Your task to perform on an android device: open app "Pinterest" Image 0: 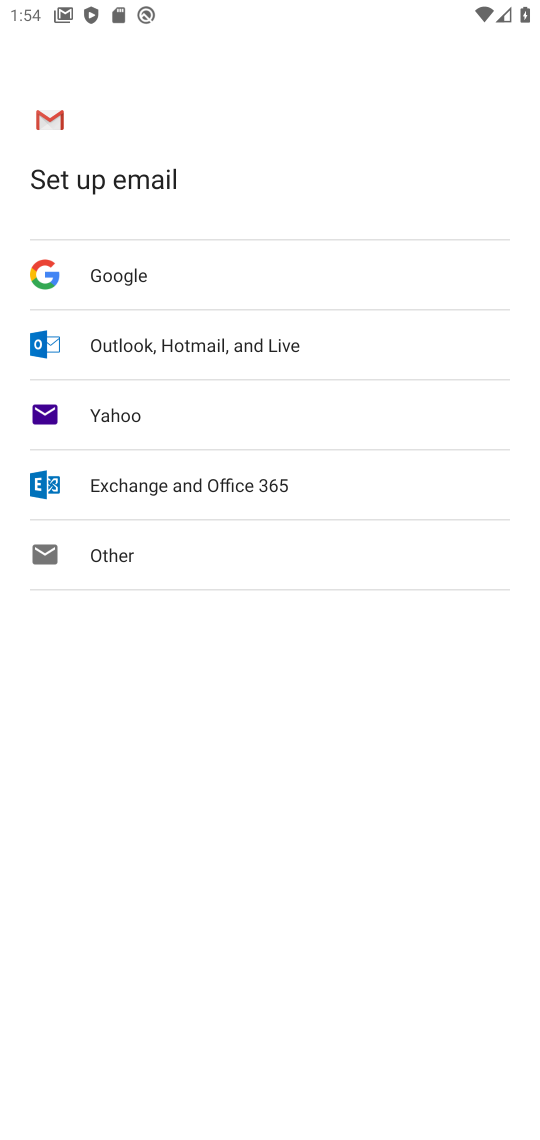
Step 0: press home button
Your task to perform on an android device: open app "Pinterest" Image 1: 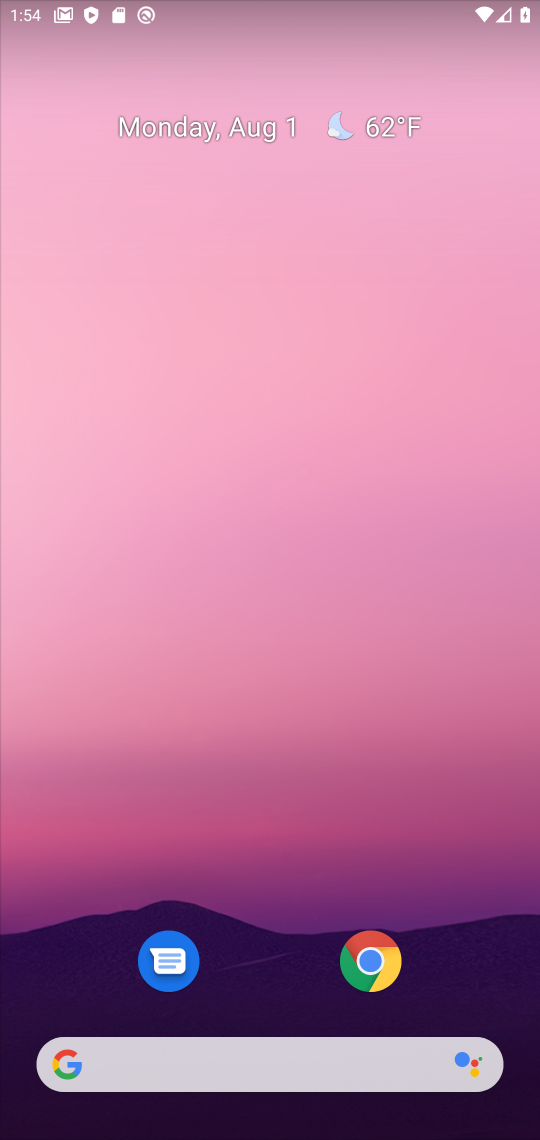
Step 1: drag from (231, 583) to (223, 108)
Your task to perform on an android device: open app "Pinterest" Image 2: 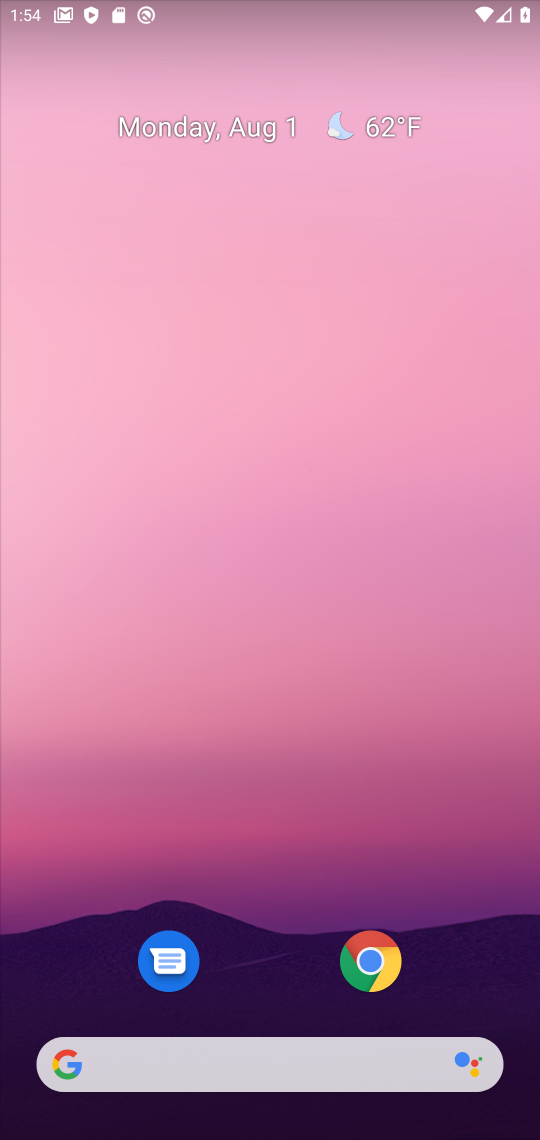
Step 2: drag from (467, 926) to (459, 127)
Your task to perform on an android device: open app "Pinterest" Image 3: 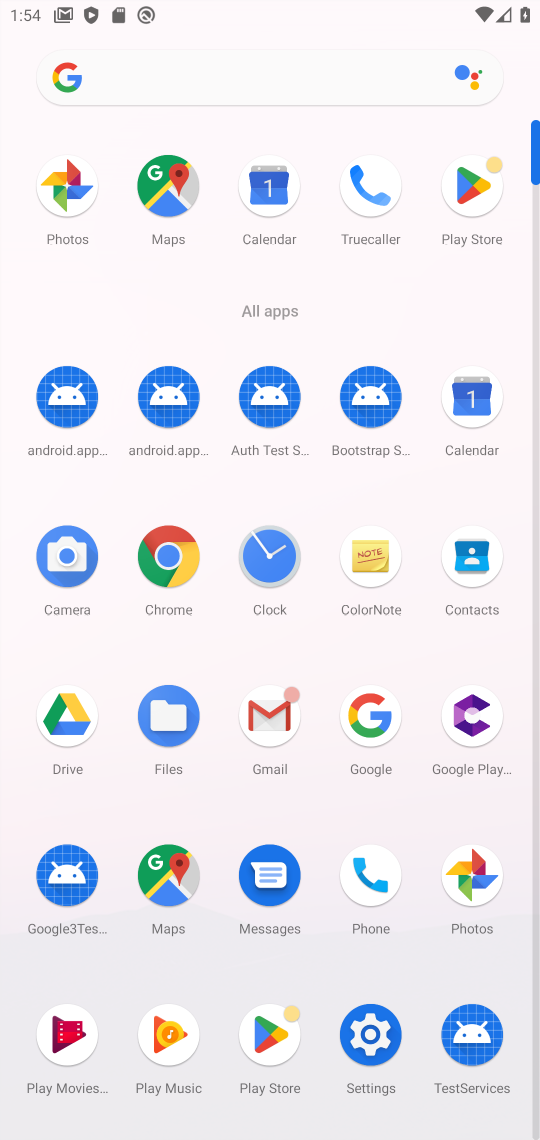
Step 3: click (475, 175)
Your task to perform on an android device: open app "Pinterest" Image 4: 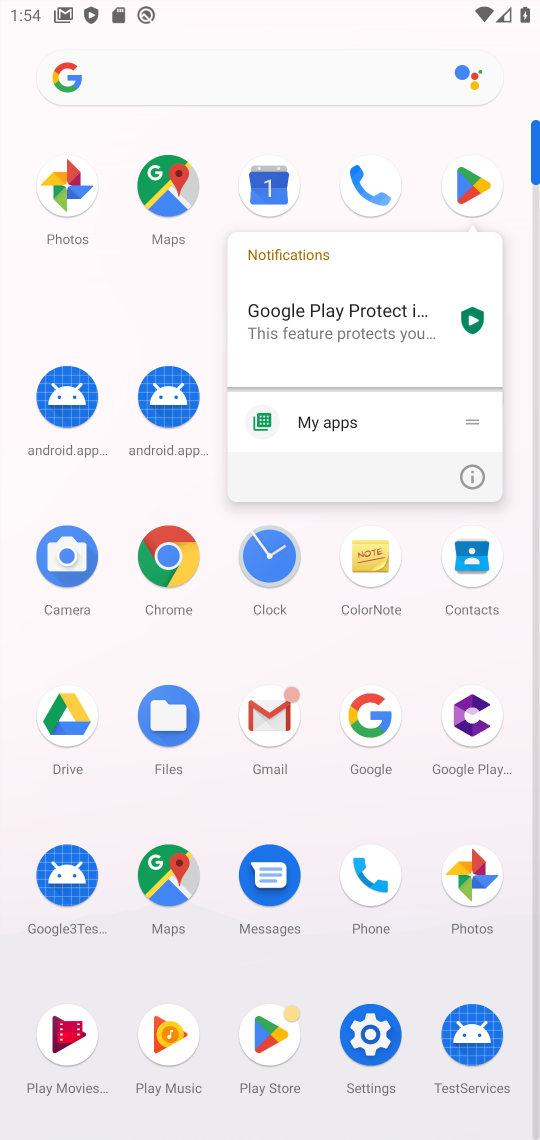
Step 4: click (460, 180)
Your task to perform on an android device: open app "Pinterest" Image 5: 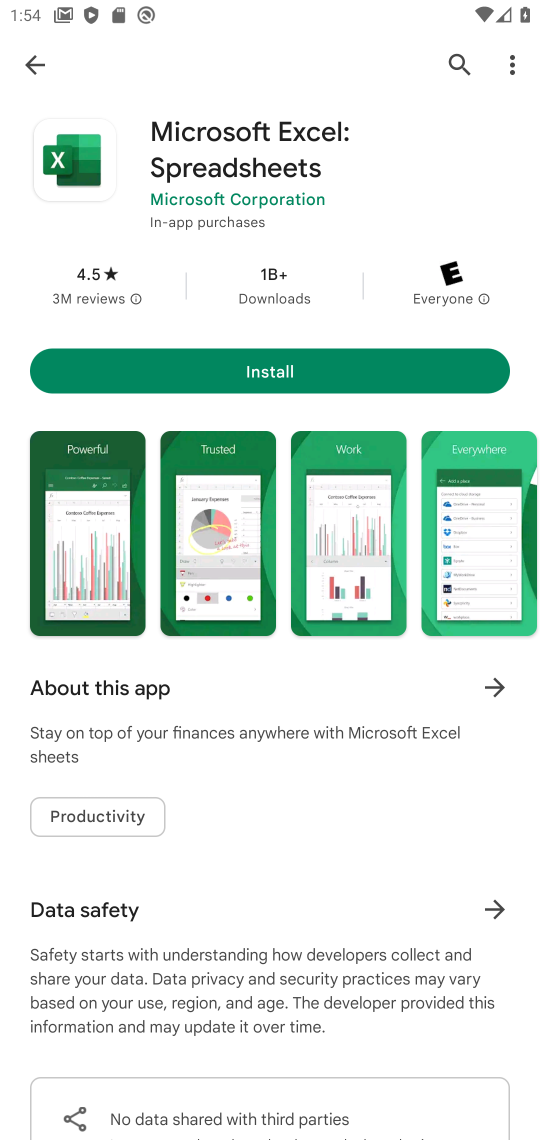
Step 5: click (461, 74)
Your task to perform on an android device: open app "Pinterest" Image 6: 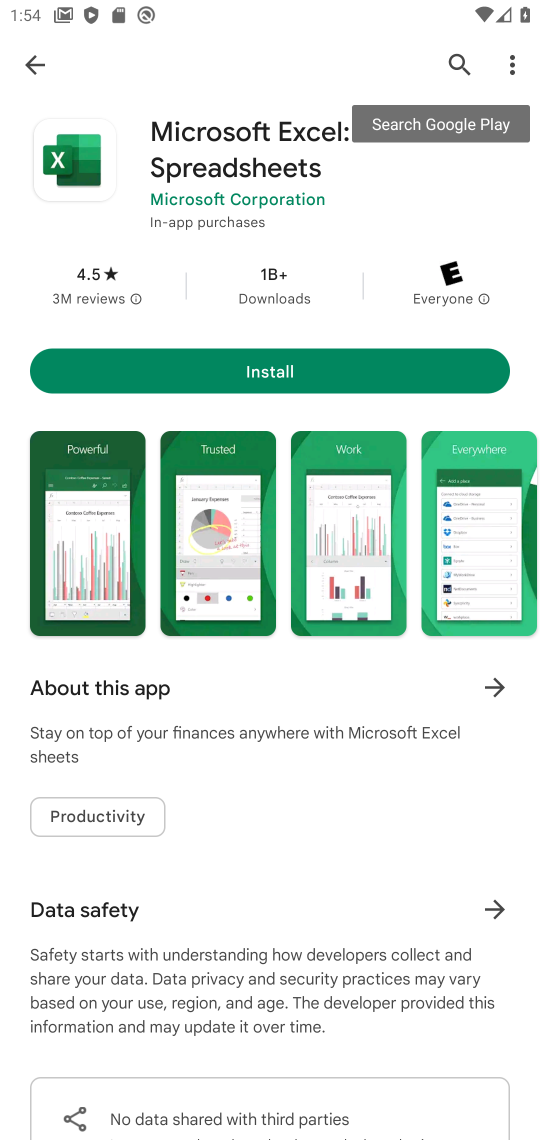
Step 6: type ""
Your task to perform on an android device: open app "Pinterest" Image 7: 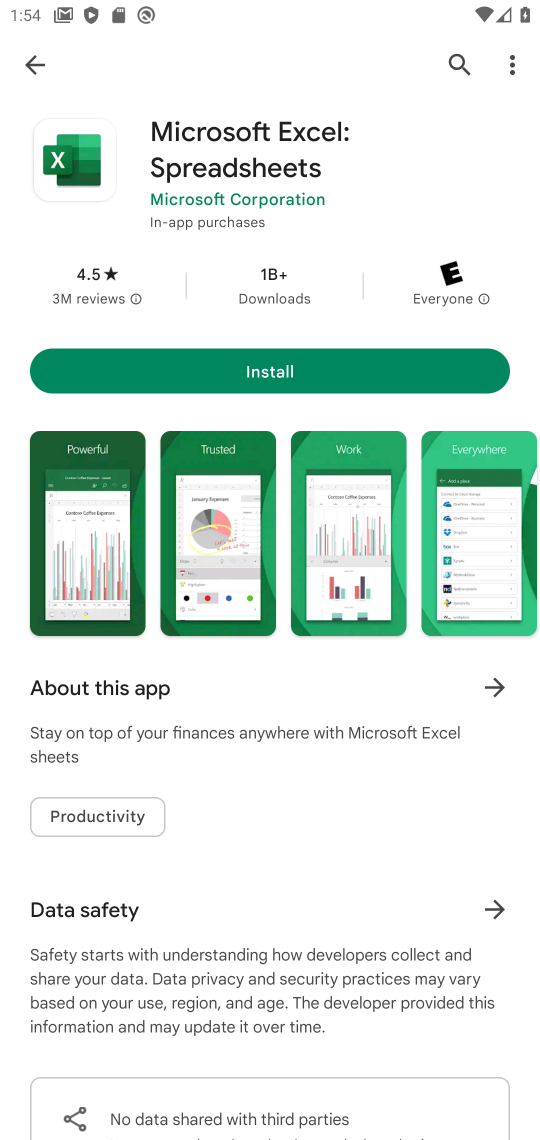
Step 7: click (438, 50)
Your task to perform on an android device: open app "Pinterest" Image 8: 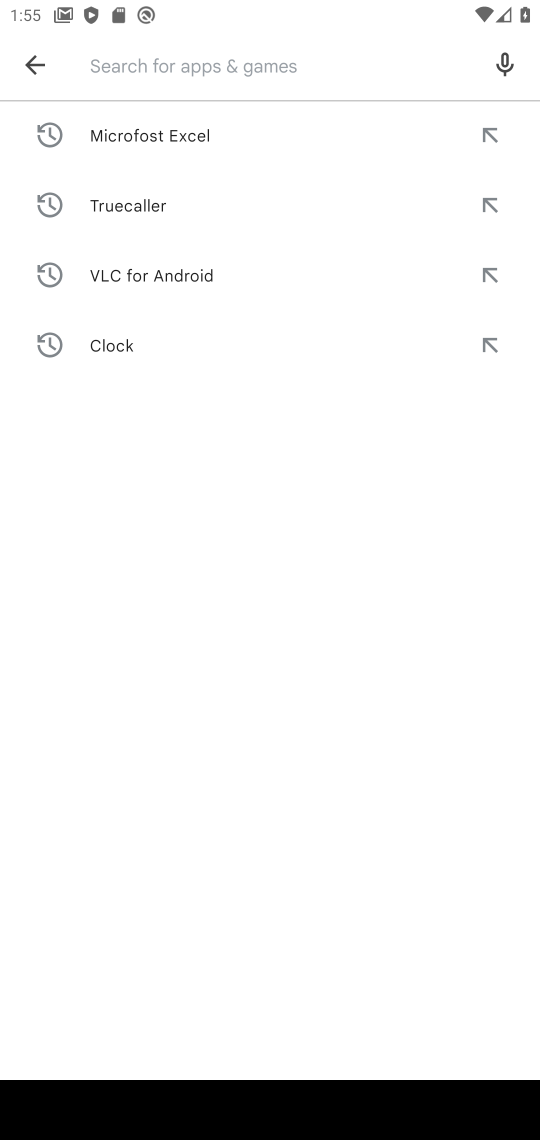
Step 8: type "Pinterest"
Your task to perform on an android device: open app "Pinterest" Image 9: 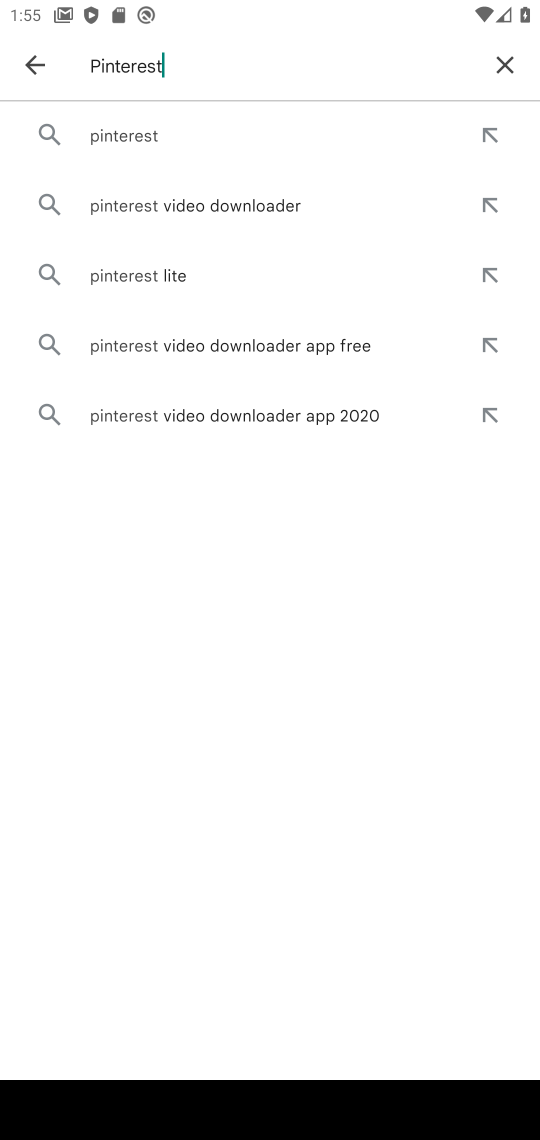
Step 9: press enter
Your task to perform on an android device: open app "Pinterest" Image 10: 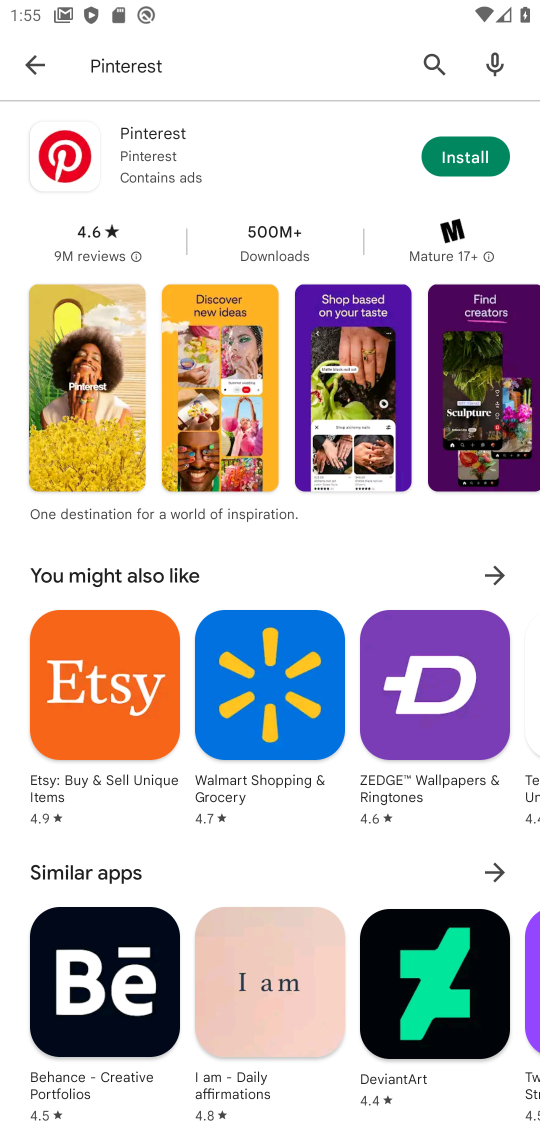
Step 10: click (225, 144)
Your task to perform on an android device: open app "Pinterest" Image 11: 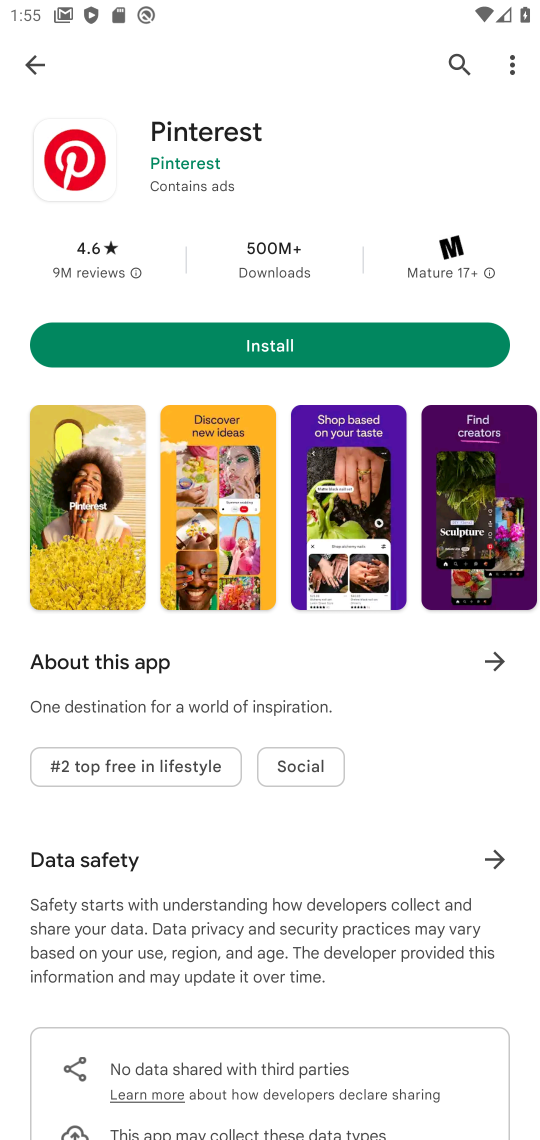
Step 11: task complete